Your task to perform on an android device: turn on wifi Image 0: 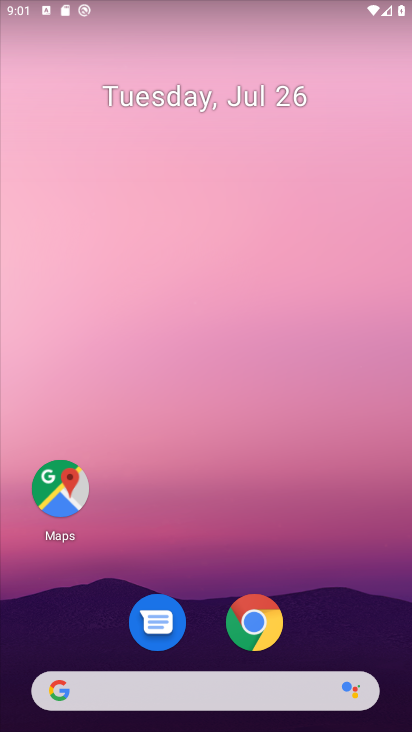
Step 0: task complete